Your task to perform on an android device: turn on bluetooth scan Image 0: 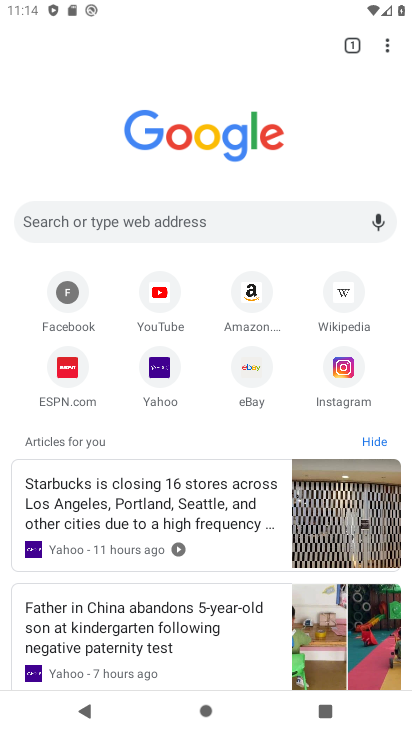
Step 0: press home button
Your task to perform on an android device: turn on bluetooth scan Image 1: 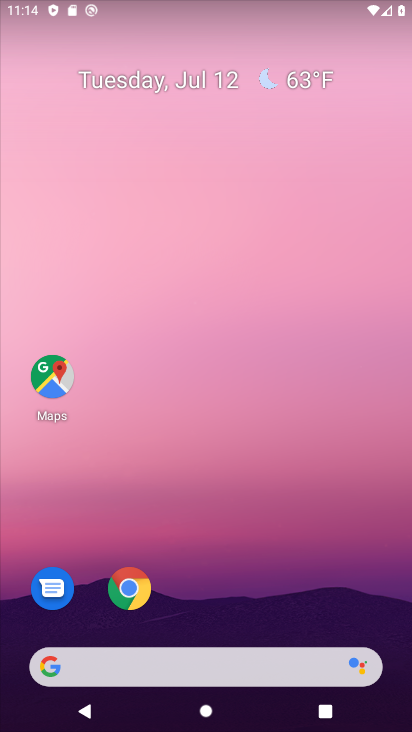
Step 1: drag from (229, 300) to (287, 128)
Your task to perform on an android device: turn on bluetooth scan Image 2: 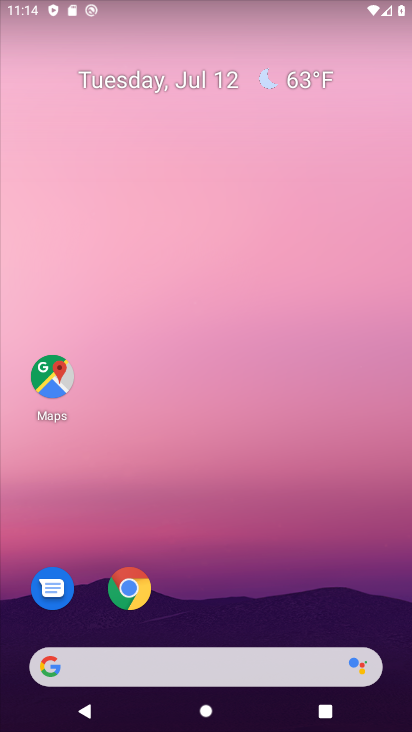
Step 2: drag from (50, 717) to (200, 201)
Your task to perform on an android device: turn on bluetooth scan Image 3: 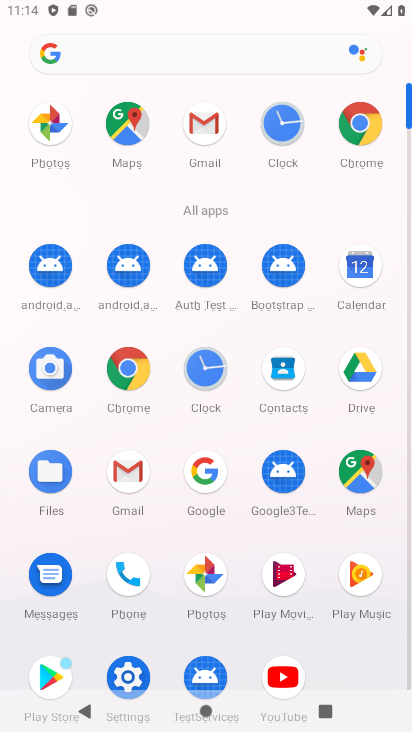
Step 3: click (115, 675)
Your task to perform on an android device: turn on bluetooth scan Image 4: 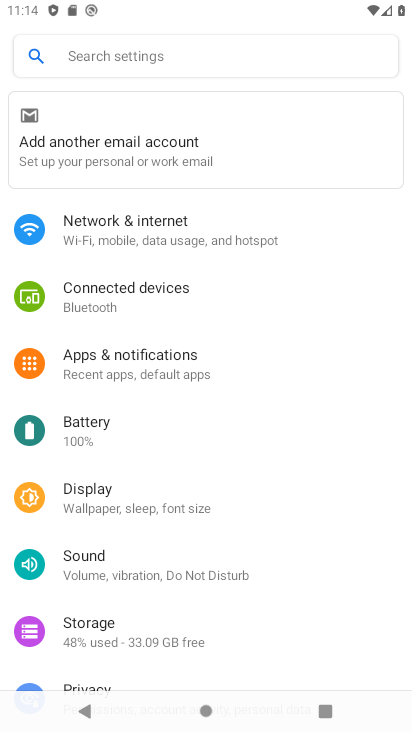
Step 4: click (127, 313)
Your task to perform on an android device: turn on bluetooth scan Image 5: 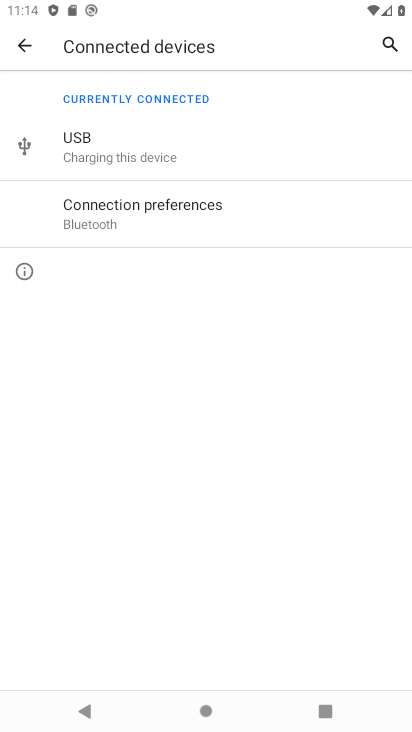
Step 5: click (103, 221)
Your task to perform on an android device: turn on bluetooth scan Image 6: 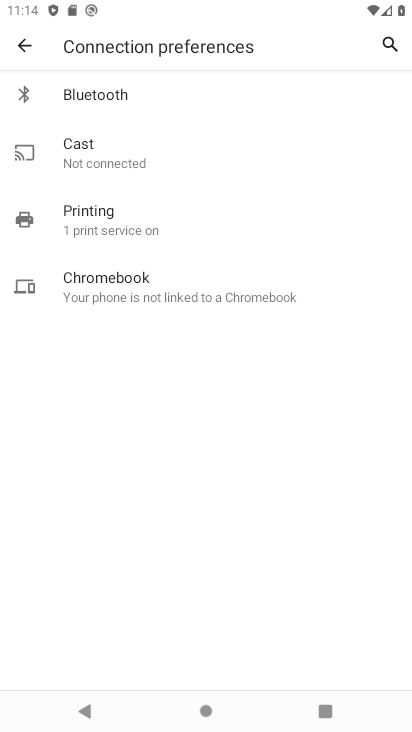
Step 6: click (137, 94)
Your task to perform on an android device: turn on bluetooth scan Image 7: 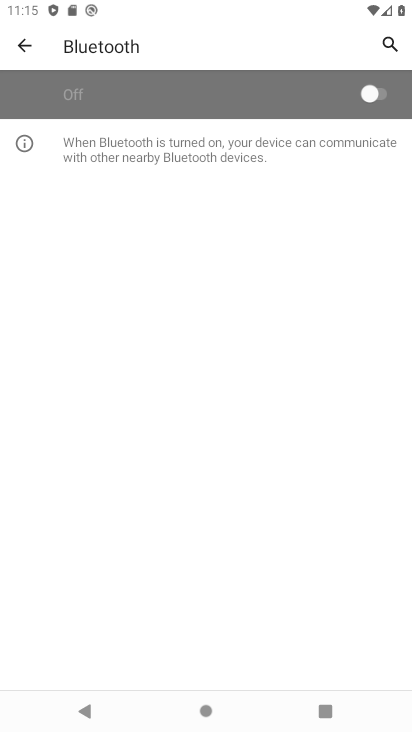
Step 7: click (372, 89)
Your task to perform on an android device: turn on bluetooth scan Image 8: 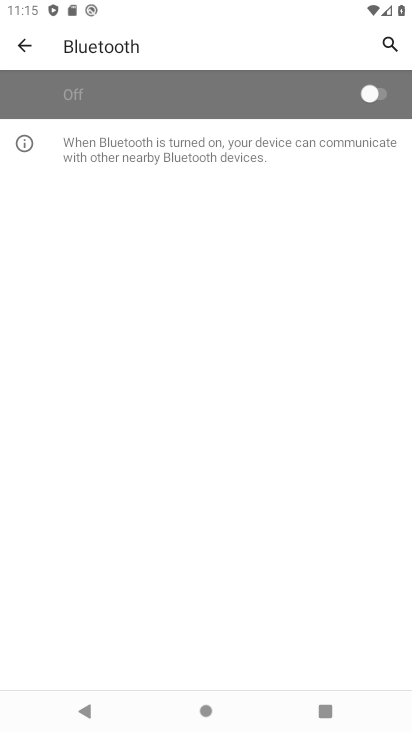
Step 8: task complete